Your task to perform on an android device: empty trash in google photos Image 0: 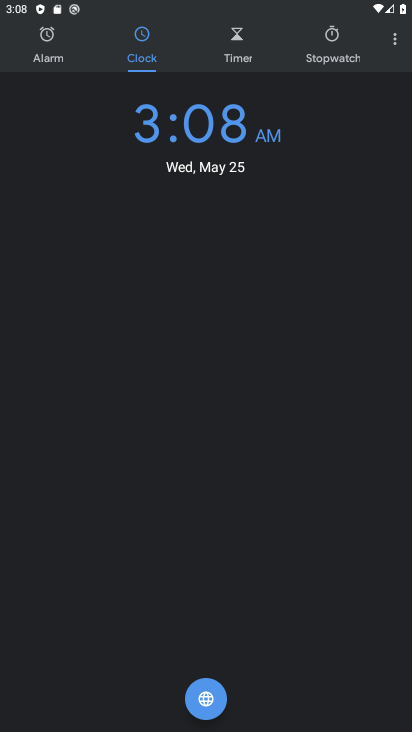
Step 0: press back button
Your task to perform on an android device: empty trash in google photos Image 1: 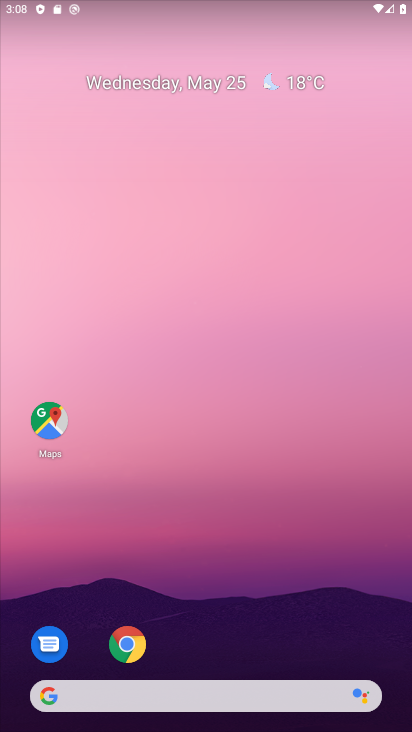
Step 1: drag from (246, 594) to (366, 155)
Your task to perform on an android device: empty trash in google photos Image 2: 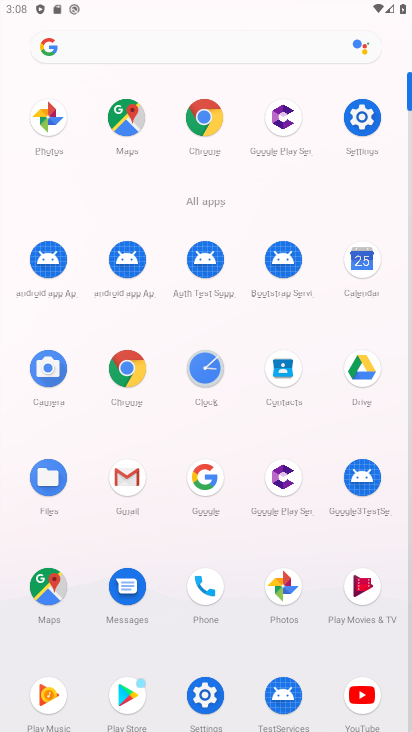
Step 2: click (47, 118)
Your task to perform on an android device: empty trash in google photos Image 3: 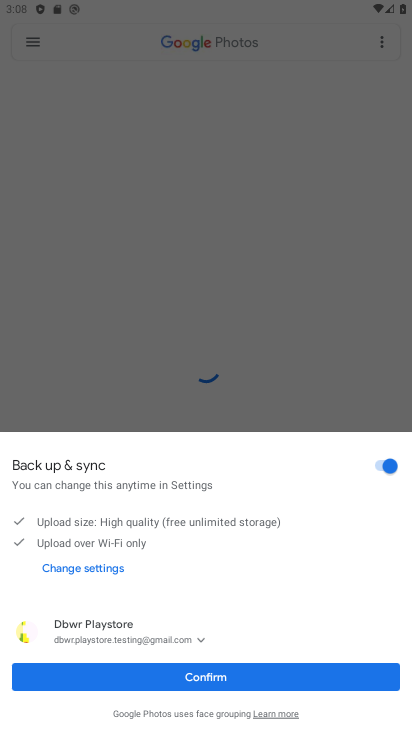
Step 3: click (234, 678)
Your task to perform on an android device: empty trash in google photos Image 4: 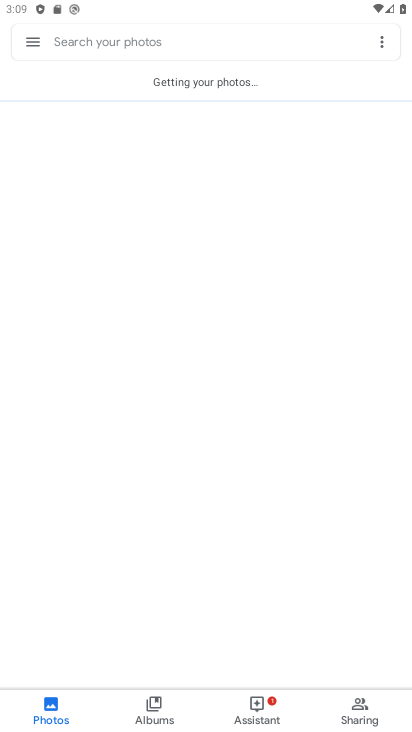
Step 4: click (30, 44)
Your task to perform on an android device: empty trash in google photos Image 5: 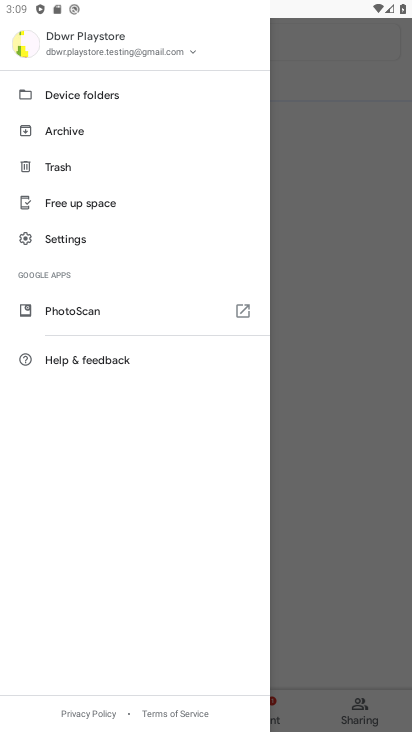
Step 5: click (54, 163)
Your task to perform on an android device: empty trash in google photos Image 6: 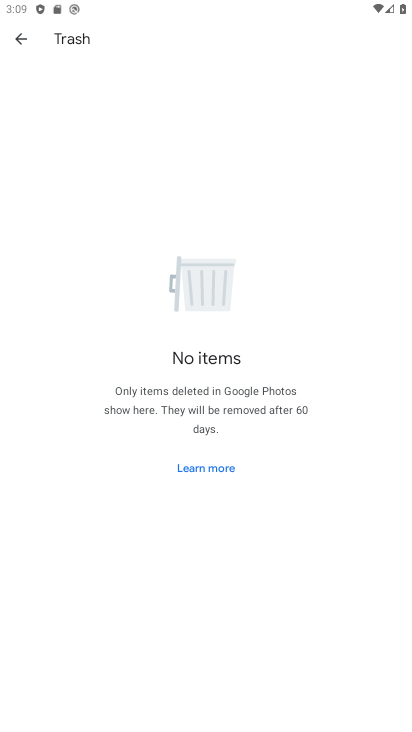
Step 6: task complete